Your task to perform on an android device: Turn on the flashlight Image 0: 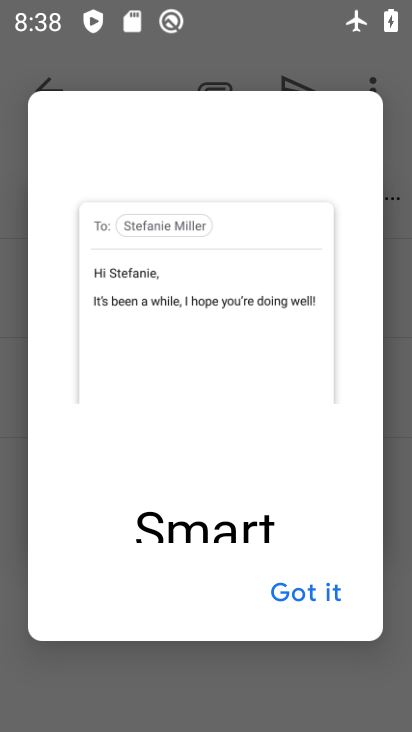
Step 0: press home button
Your task to perform on an android device: Turn on the flashlight Image 1: 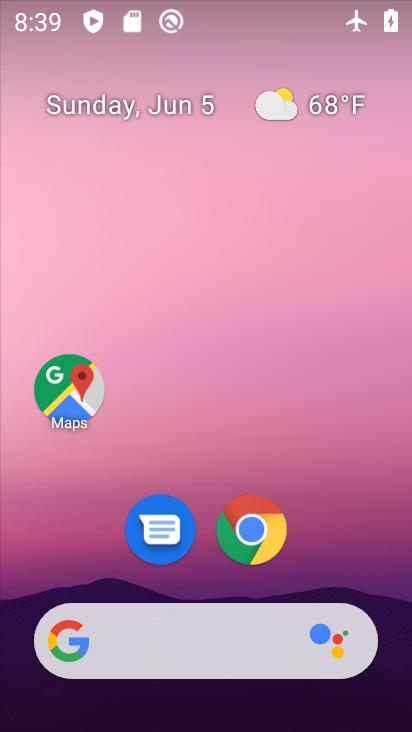
Step 1: task complete